Your task to perform on an android device: Open settings Image 0: 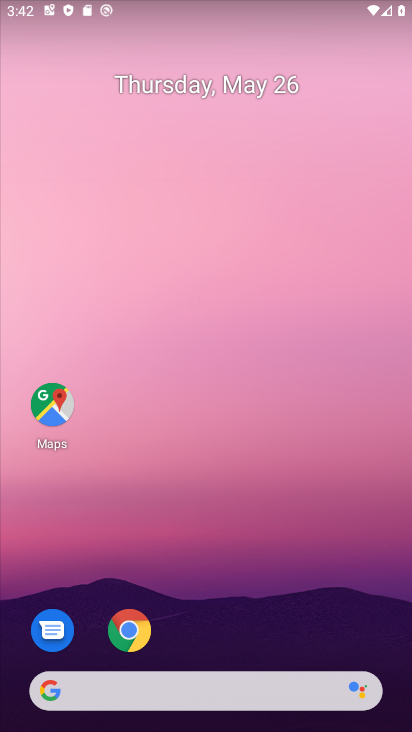
Step 0: drag from (243, 632) to (196, 230)
Your task to perform on an android device: Open settings Image 1: 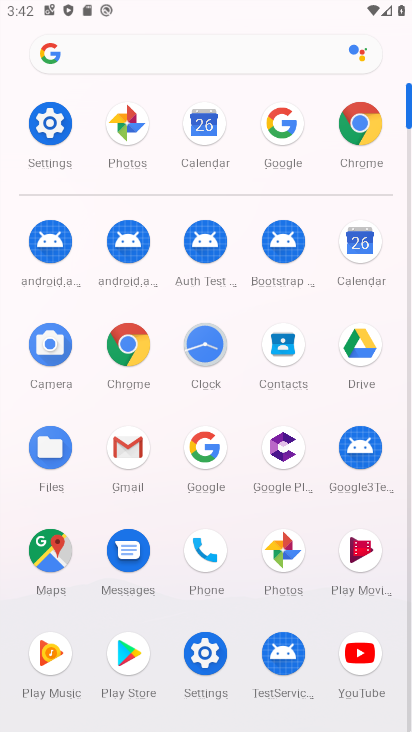
Step 1: click (50, 125)
Your task to perform on an android device: Open settings Image 2: 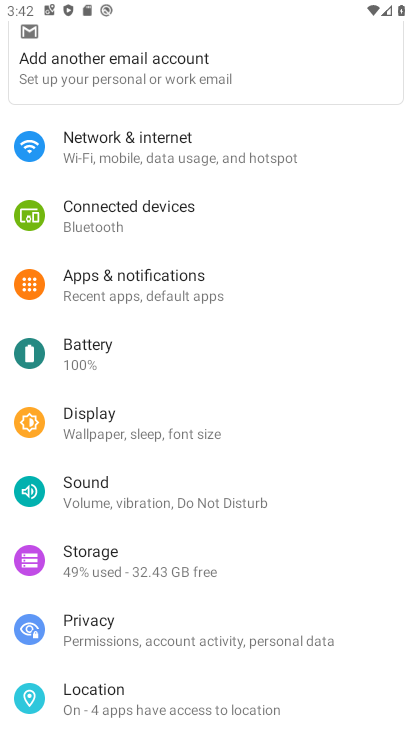
Step 2: task complete